Your task to perform on an android device: Search for razer deathadder on costco, select the first entry, and add it to the cart. Image 0: 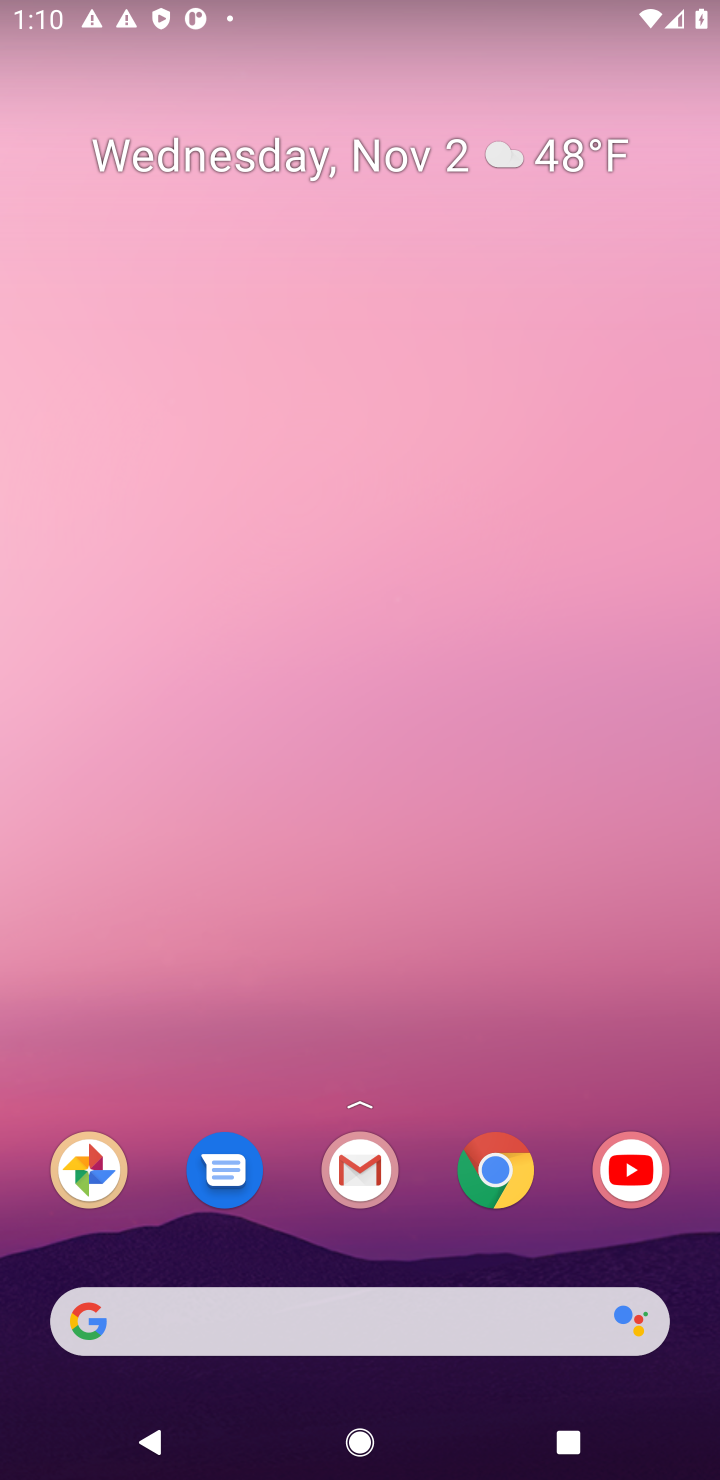
Step 0: drag from (433, 1238) to (391, 191)
Your task to perform on an android device: Search for razer deathadder on costco, select the first entry, and add it to the cart. Image 1: 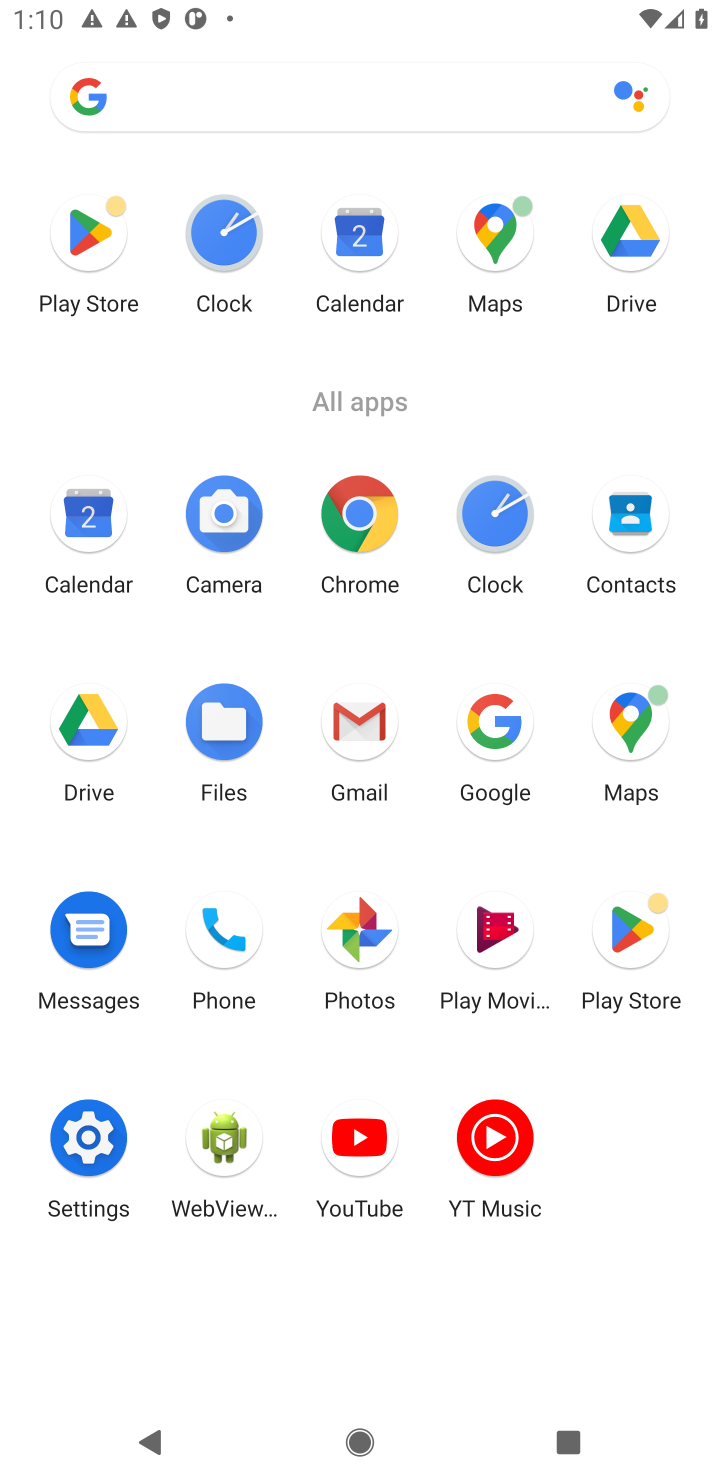
Step 1: click (501, 727)
Your task to perform on an android device: Search for razer deathadder on costco, select the first entry, and add it to the cart. Image 2: 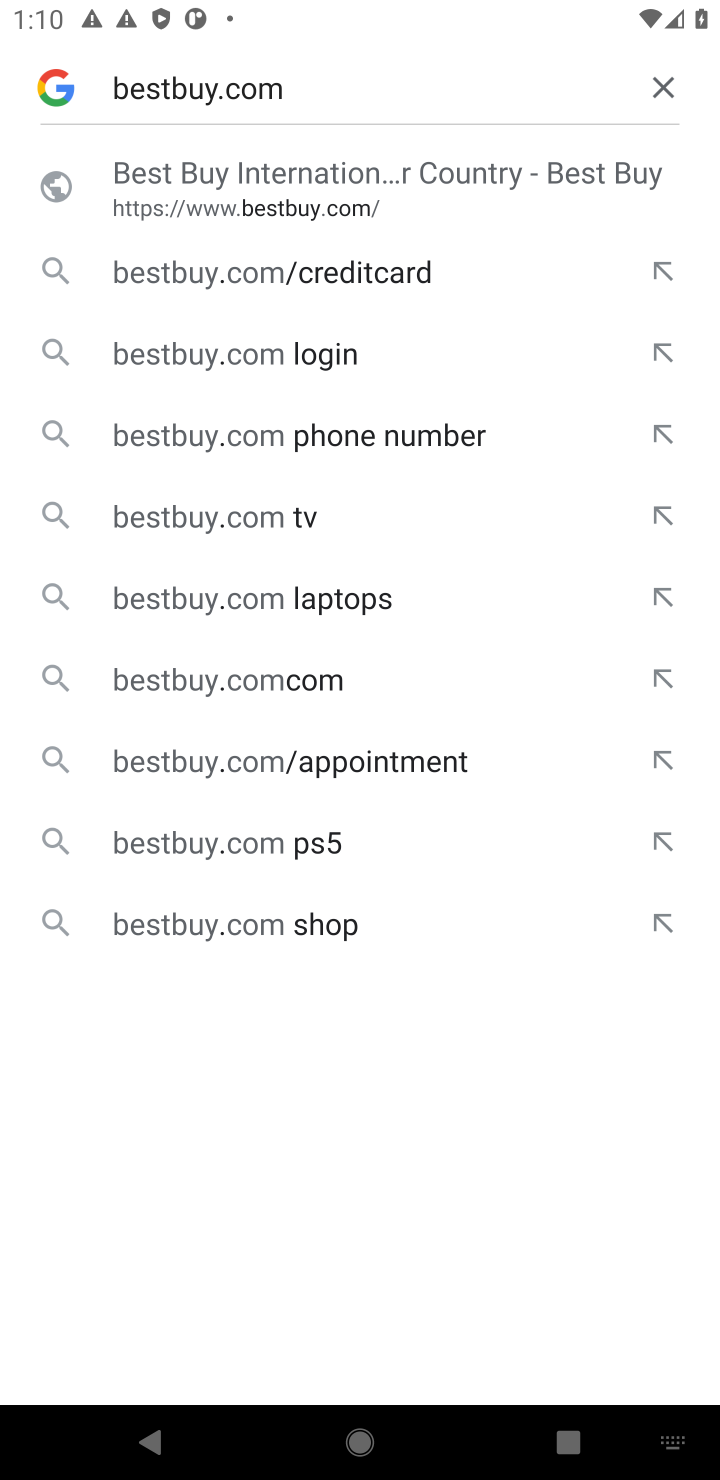
Step 2: click (662, 88)
Your task to perform on an android device: Search for razer deathadder on costco, select the first entry, and add it to the cart. Image 3: 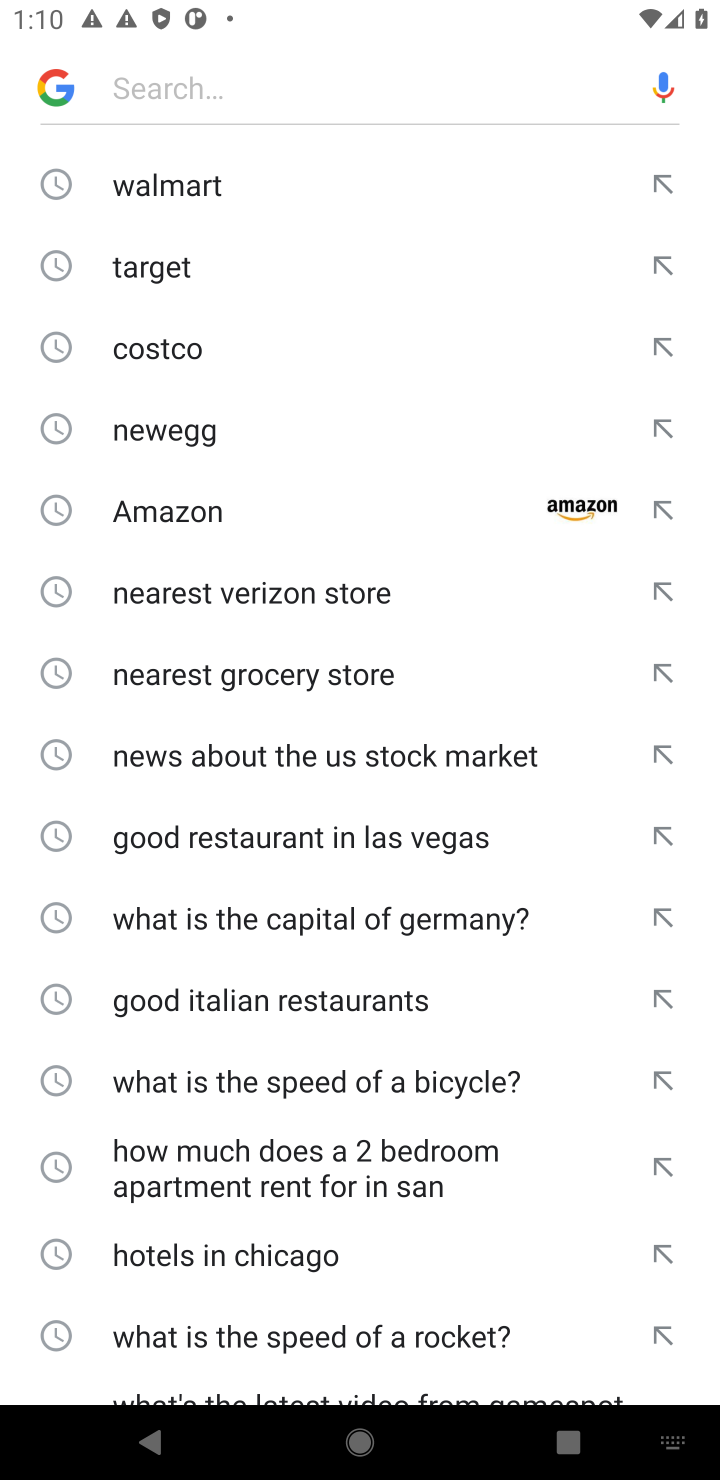
Step 3: type "costco"
Your task to perform on an android device: Search for razer deathadder on costco, select the first entry, and add it to the cart. Image 4: 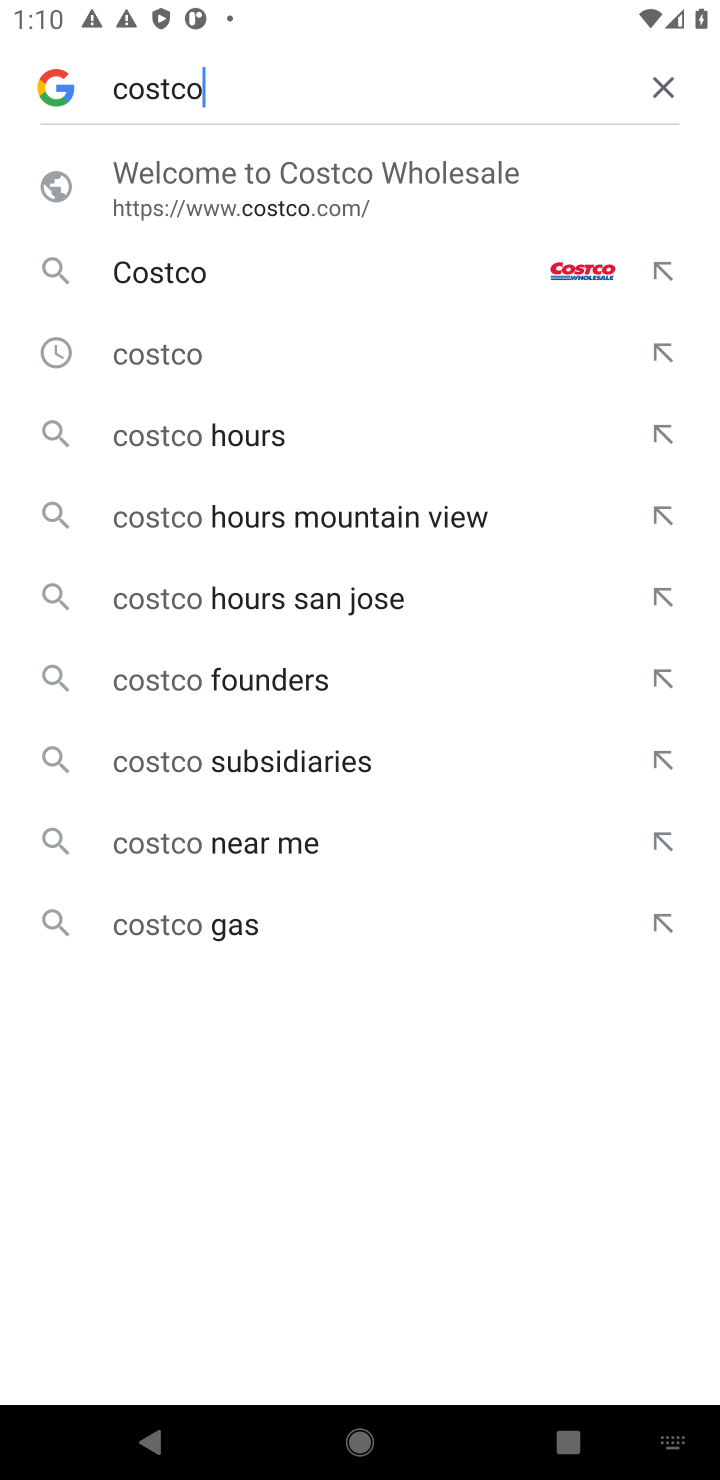
Step 4: click (292, 197)
Your task to perform on an android device: Search for razer deathadder on costco, select the first entry, and add it to the cart. Image 5: 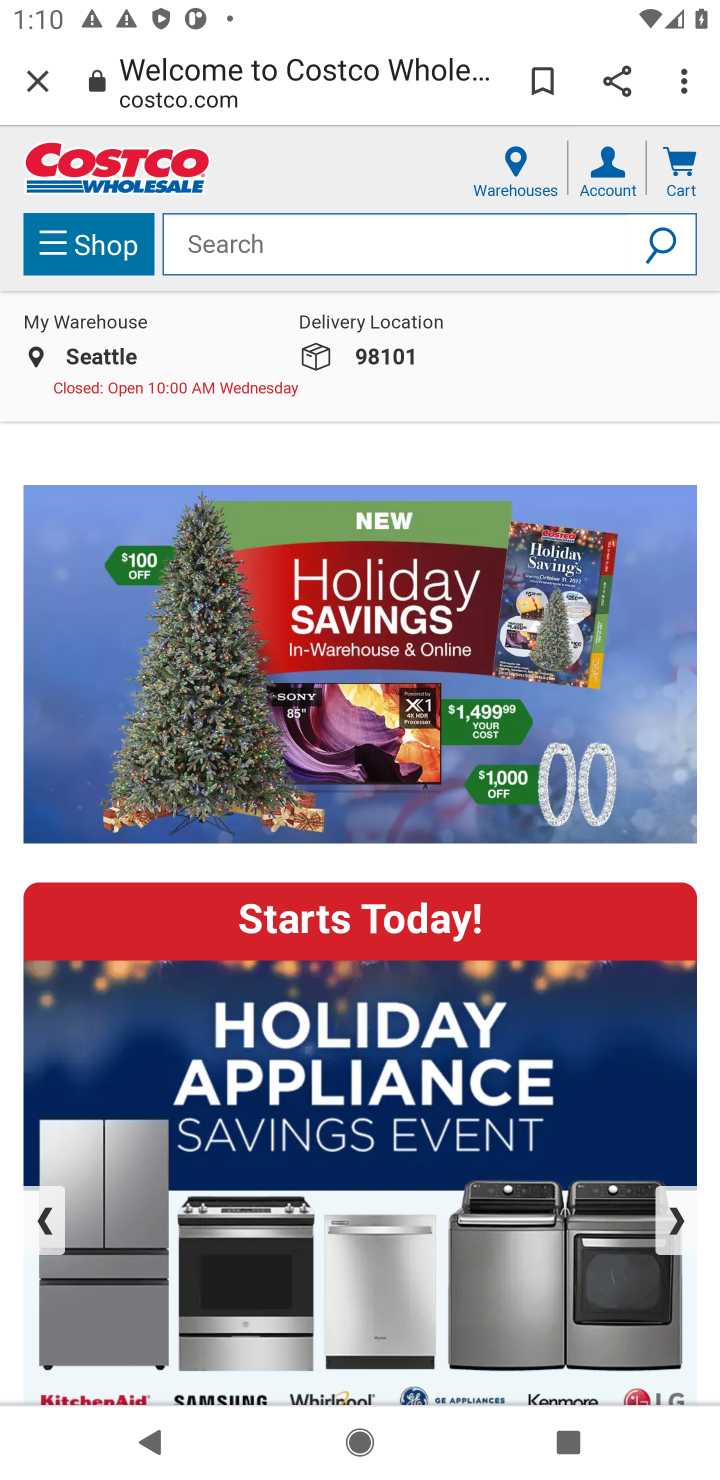
Step 5: click (542, 247)
Your task to perform on an android device: Search for razer deathadder on costco, select the first entry, and add it to the cart. Image 6: 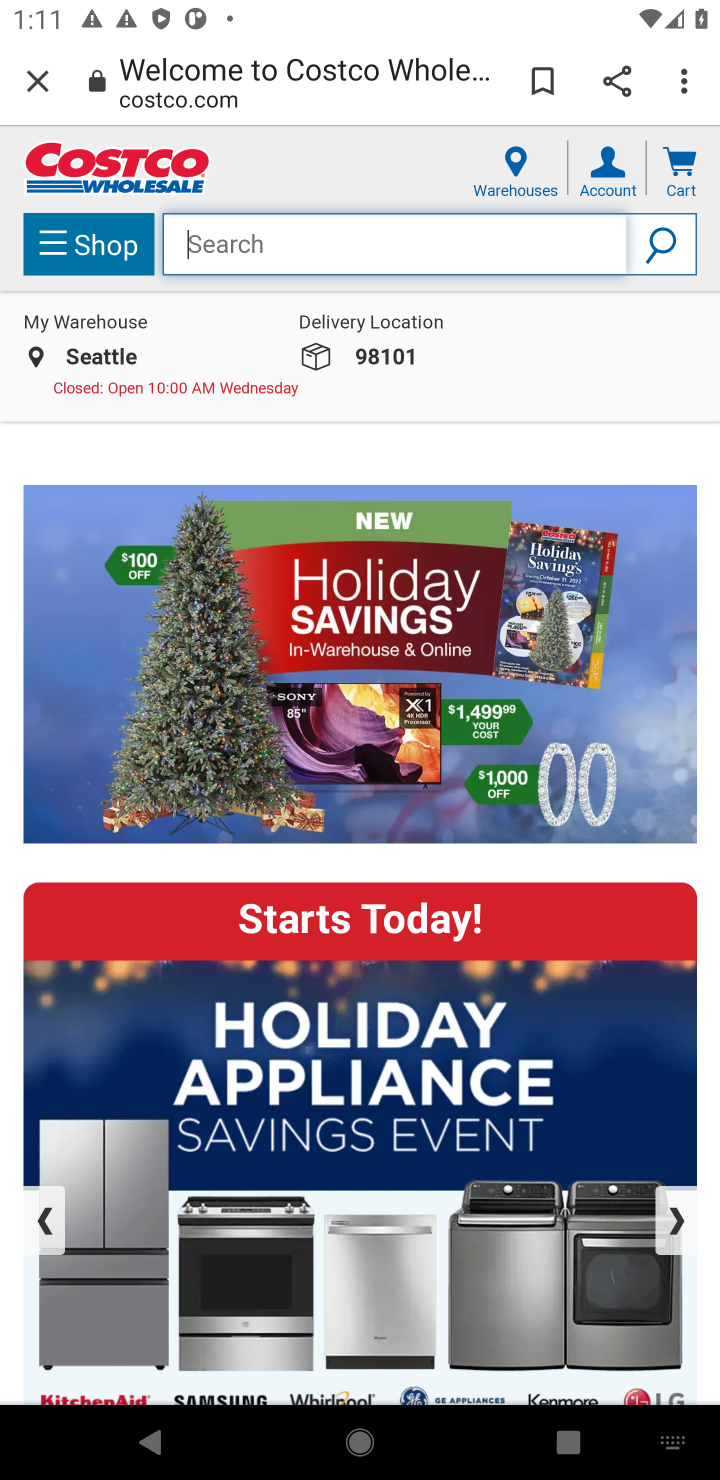
Step 6: type "razer deathadder"
Your task to perform on an android device: Search for razer deathadder on costco, select the first entry, and add it to the cart. Image 7: 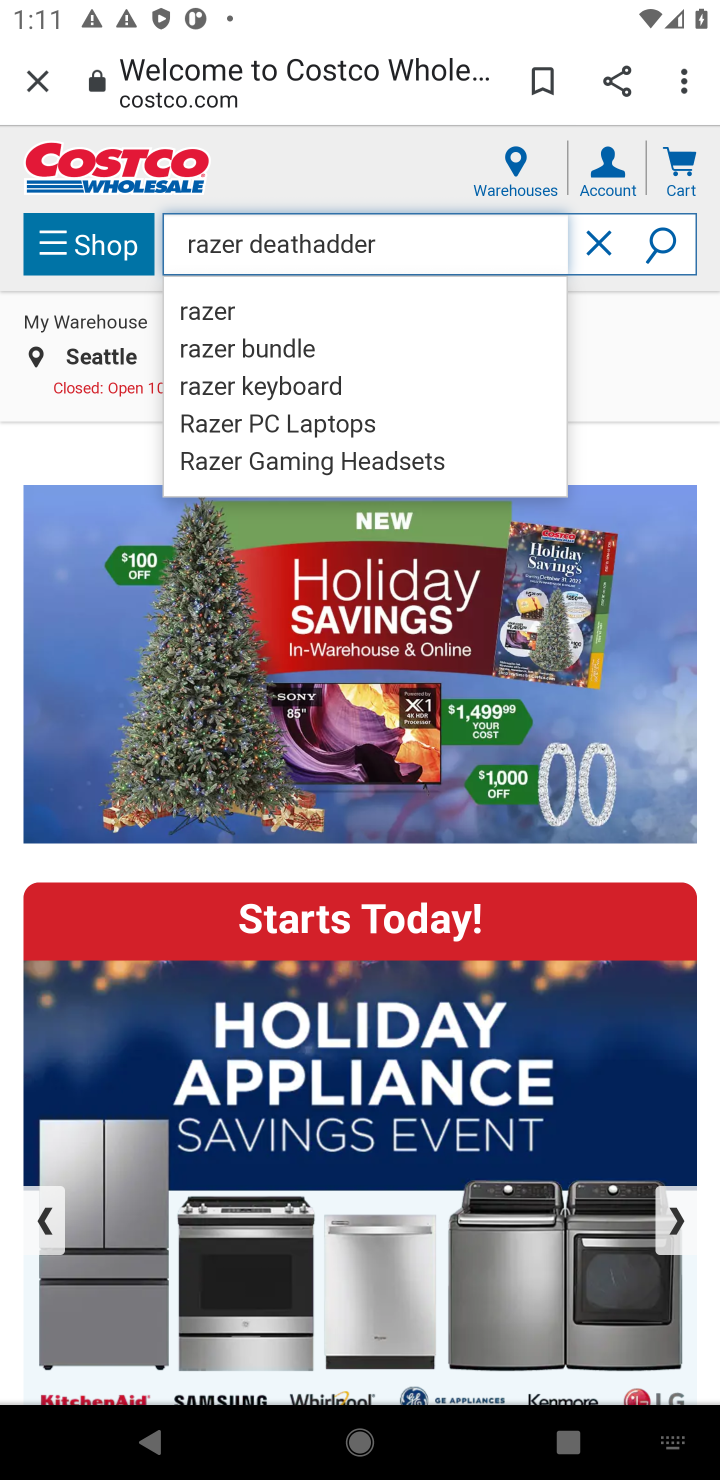
Step 7: click (673, 253)
Your task to perform on an android device: Search for razer deathadder on costco, select the first entry, and add it to the cart. Image 8: 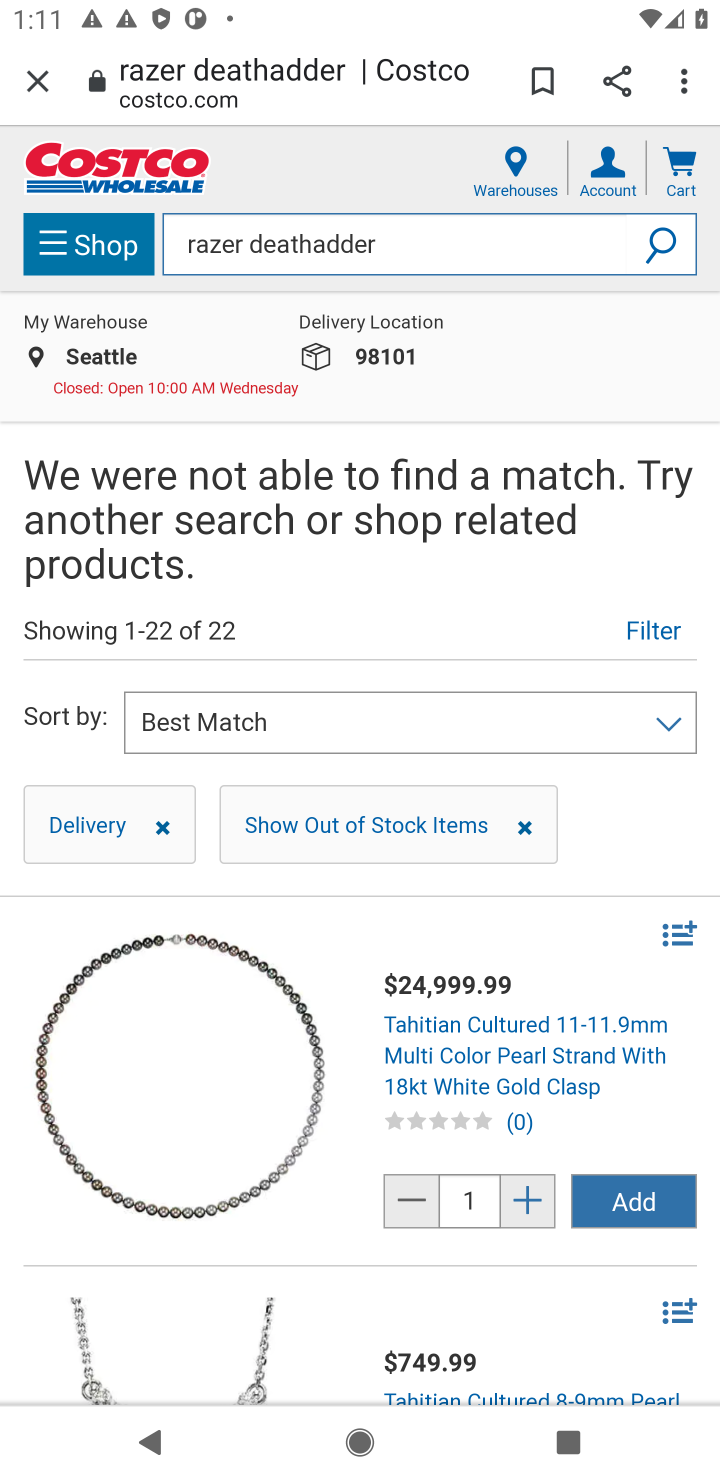
Step 8: drag from (302, 1050) to (300, 710)
Your task to perform on an android device: Search for razer deathadder on costco, select the first entry, and add it to the cart. Image 9: 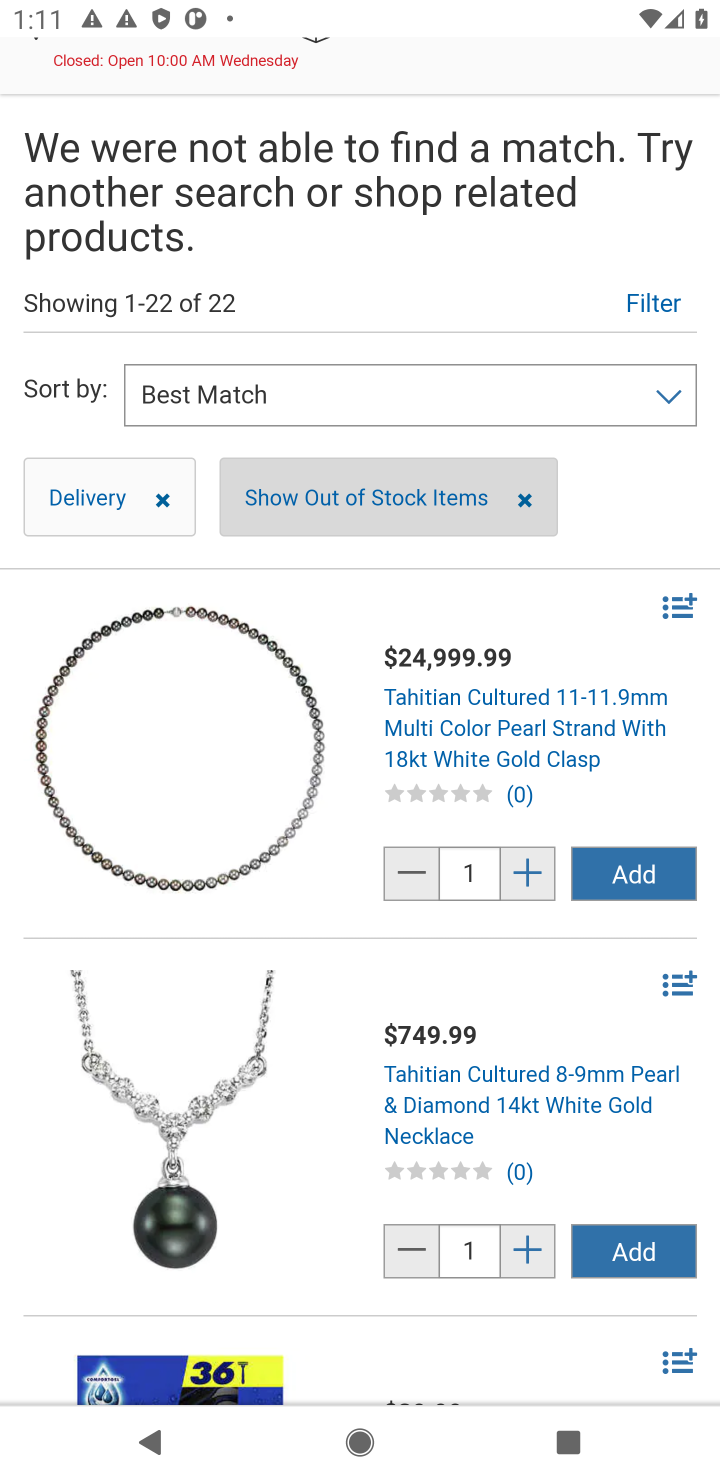
Step 9: click (647, 869)
Your task to perform on an android device: Search for razer deathadder on costco, select the first entry, and add it to the cart. Image 10: 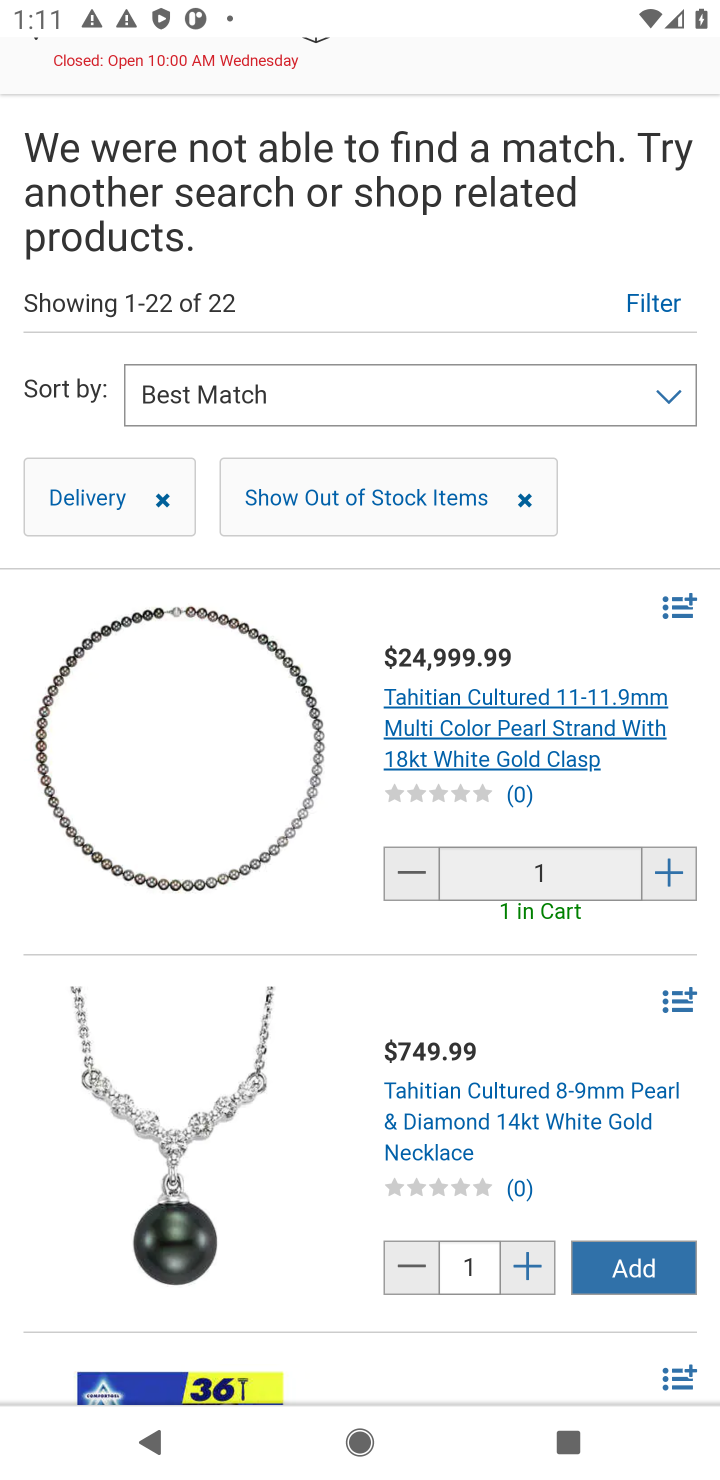
Step 10: task complete